Your task to perform on an android device: toggle notification dots Image 0: 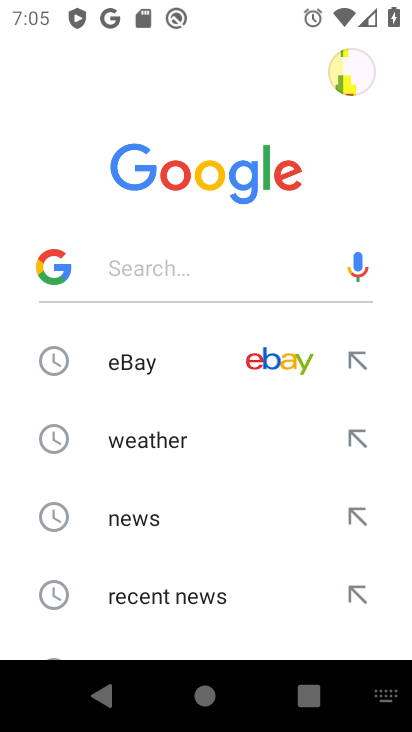
Step 0: press home button
Your task to perform on an android device: toggle notification dots Image 1: 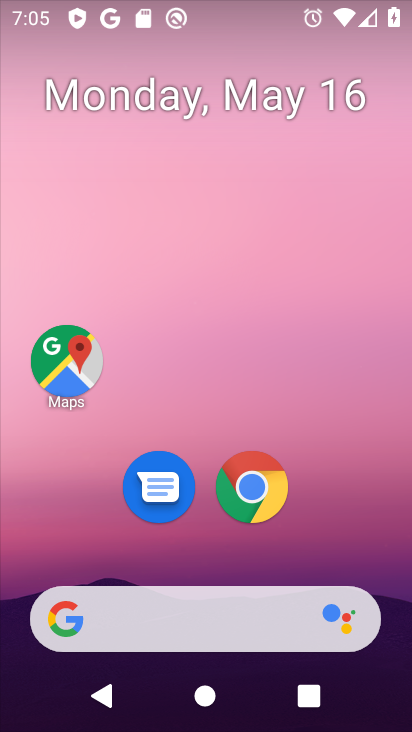
Step 1: drag from (360, 429) to (274, 55)
Your task to perform on an android device: toggle notification dots Image 2: 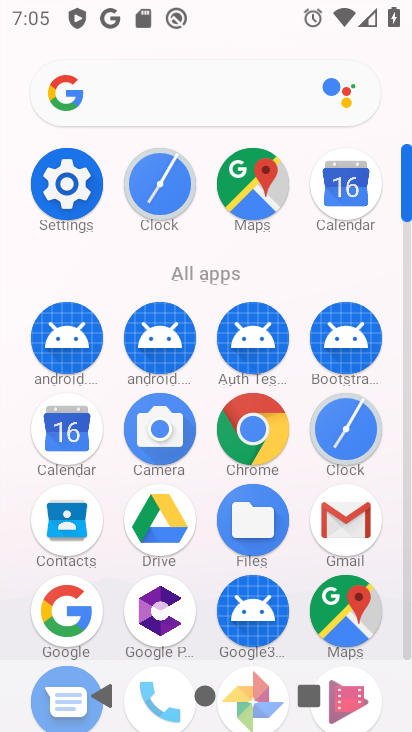
Step 2: click (67, 193)
Your task to perform on an android device: toggle notification dots Image 3: 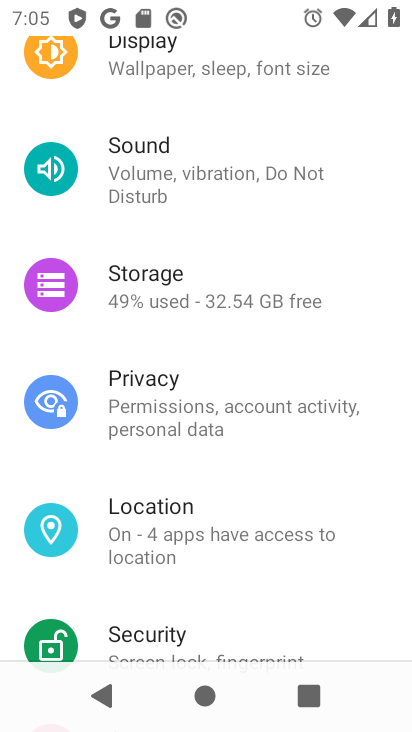
Step 3: drag from (222, 536) to (205, 311)
Your task to perform on an android device: toggle notification dots Image 4: 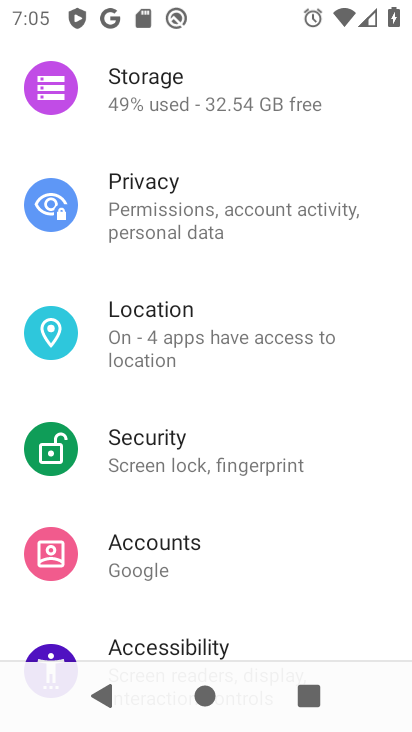
Step 4: drag from (182, 524) to (176, 656)
Your task to perform on an android device: toggle notification dots Image 5: 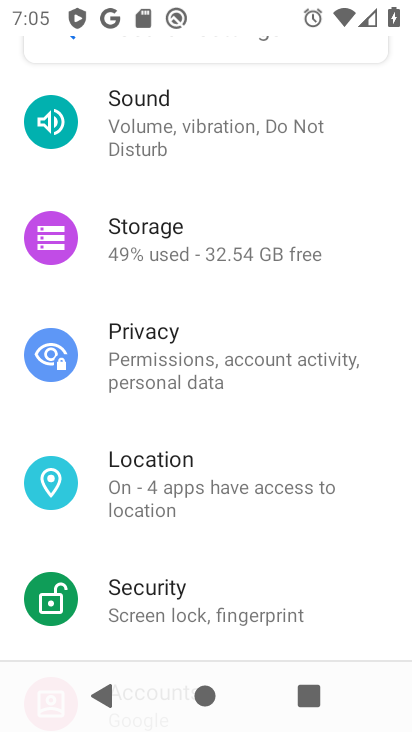
Step 5: drag from (195, 349) to (0, 152)
Your task to perform on an android device: toggle notification dots Image 6: 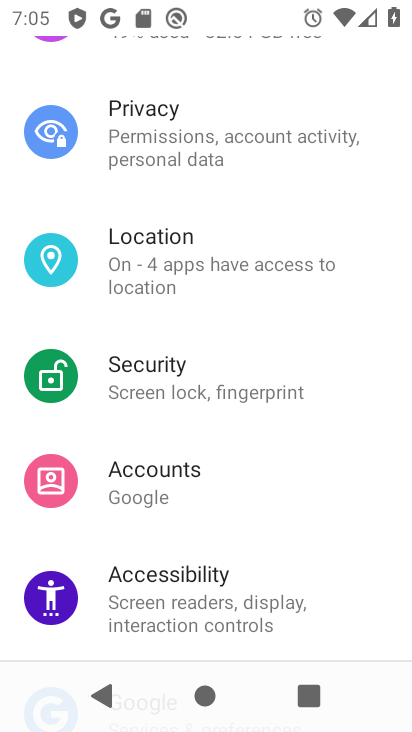
Step 6: drag from (191, 278) to (167, 728)
Your task to perform on an android device: toggle notification dots Image 7: 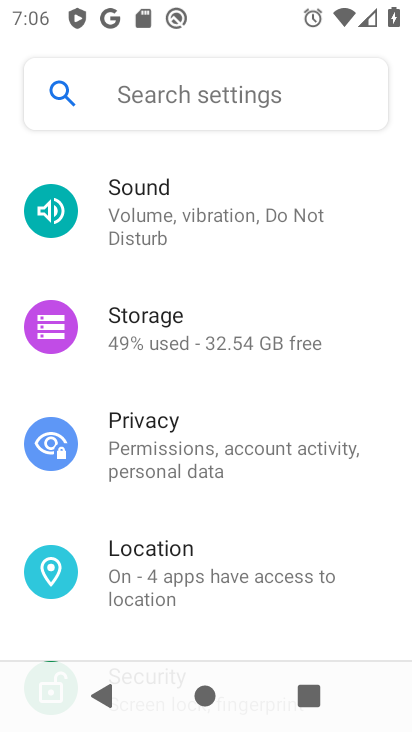
Step 7: drag from (193, 229) to (129, 726)
Your task to perform on an android device: toggle notification dots Image 8: 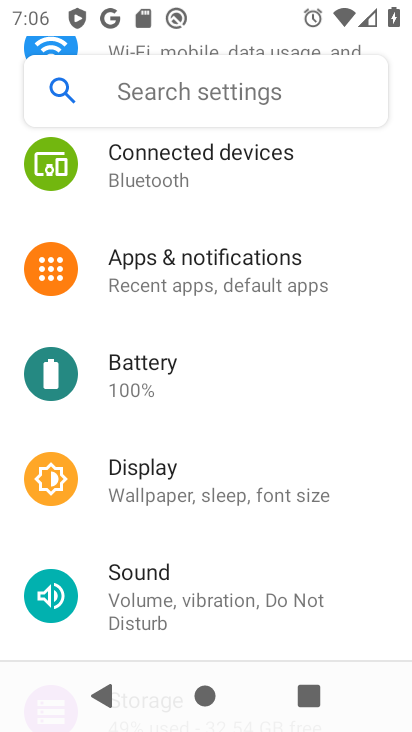
Step 8: click (148, 251)
Your task to perform on an android device: toggle notification dots Image 9: 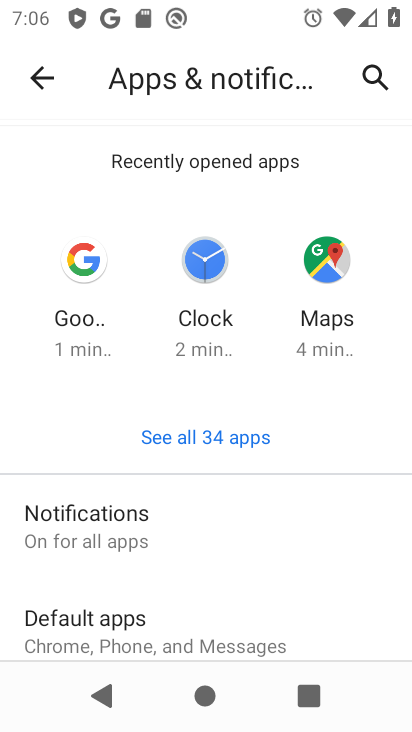
Step 9: click (109, 498)
Your task to perform on an android device: toggle notification dots Image 10: 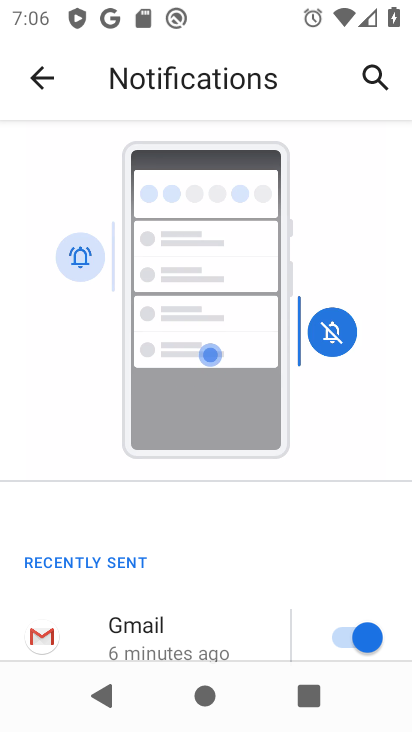
Step 10: drag from (193, 598) to (215, 127)
Your task to perform on an android device: toggle notification dots Image 11: 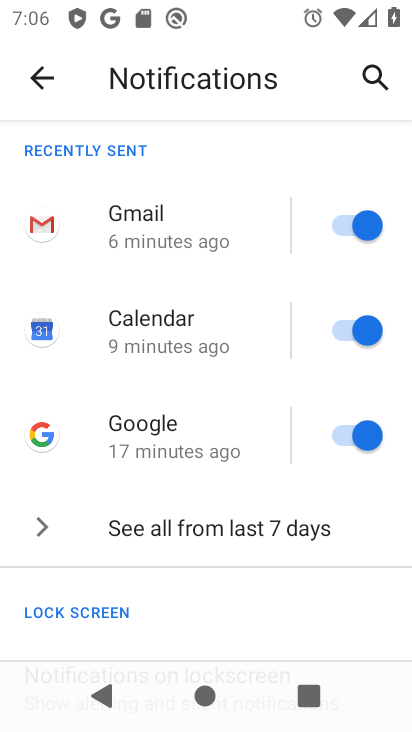
Step 11: drag from (254, 536) to (166, 86)
Your task to perform on an android device: toggle notification dots Image 12: 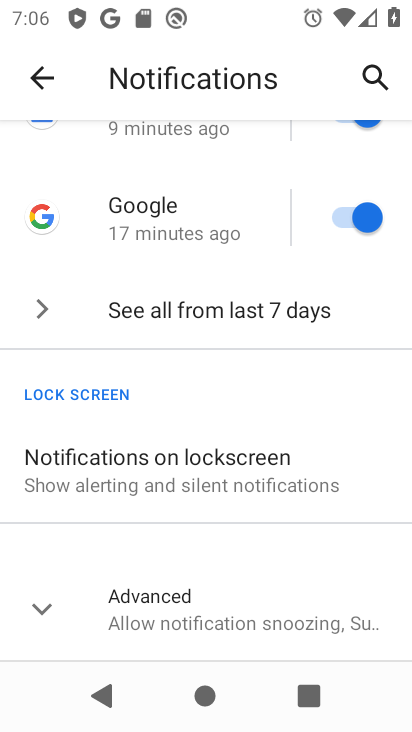
Step 12: click (250, 587)
Your task to perform on an android device: toggle notification dots Image 13: 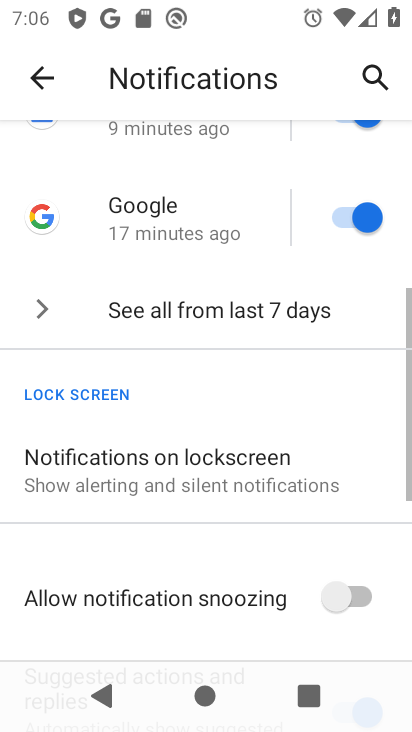
Step 13: drag from (211, 560) to (200, 164)
Your task to perform on an android device: toggle notification dots Image 14: 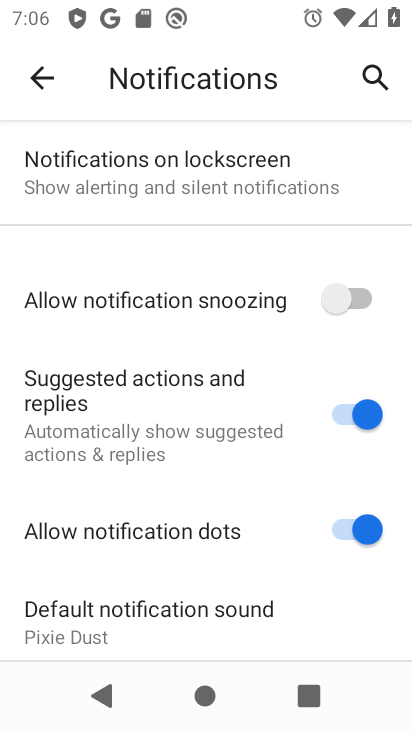
Step 14: click (334, 529)
Your task to perform on an android device: toggle notification dots Image 15: 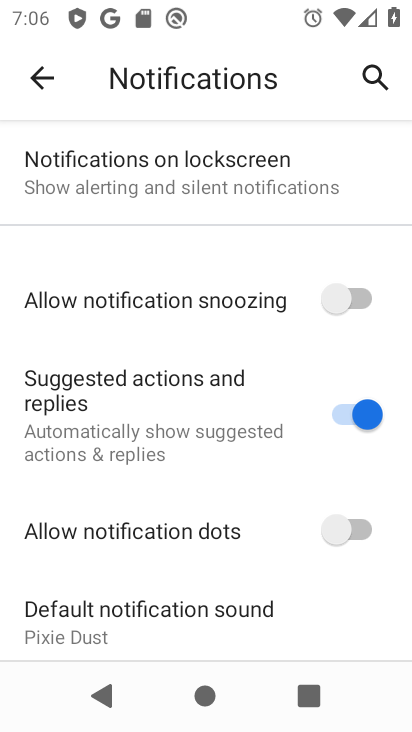
Step 15: task complete